Your task to perform on an android device: Open settings on Google Maps Image 0: 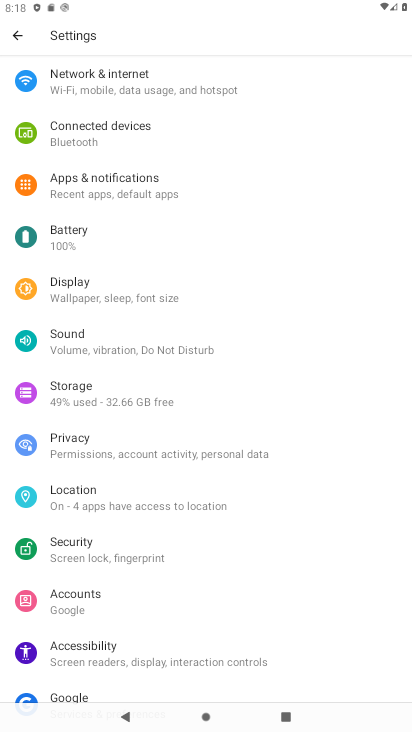
Step 0: press home button
Your task to perform on an android device: Open settings on Google Maps Image 1: 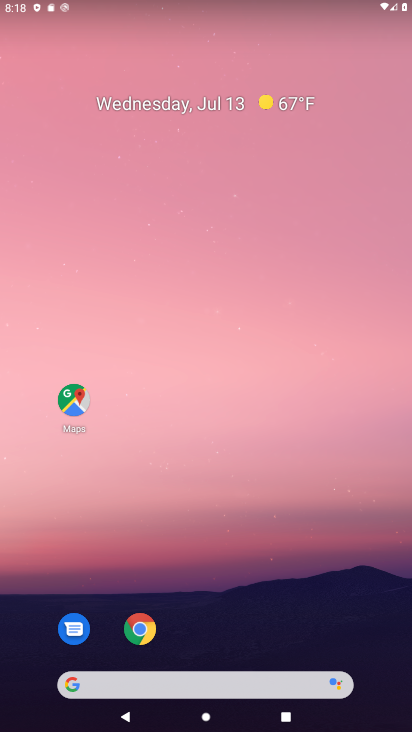
Step 1: drag from (222, 655) to (218, 122)
Your task to perform on an android device: Open settings on Google Maps Image 2: 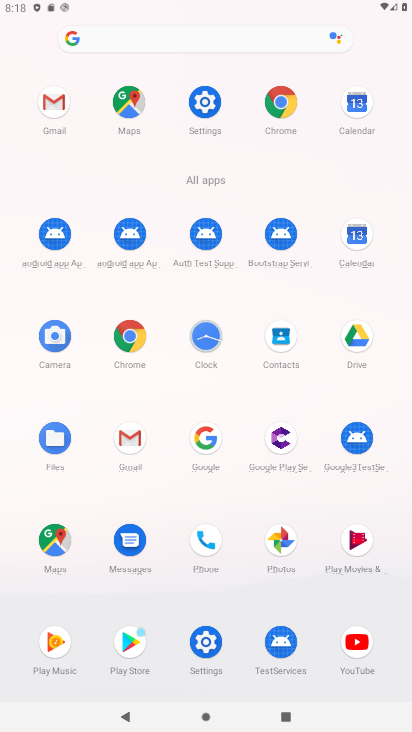
Step 2: click (54, 535)
Your task to perform on an android device: Open settings on Google Maps Image 3: 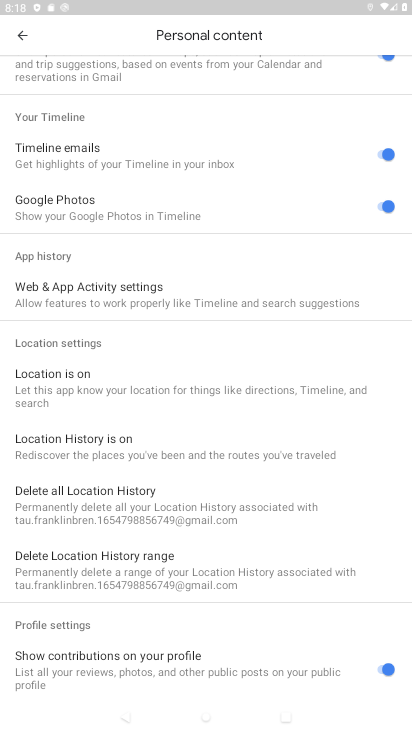
Step 3: drag from (165, 282) to (135, 579)
Your task to perform on an android device: Open settings on Google Maps Image 4: 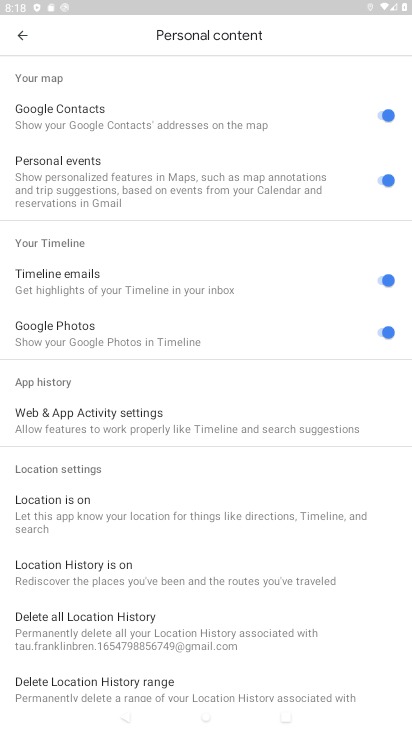
Step 4: click (23, 38)
Your task to perform on an android device: Open settings on Google Maps Image 5: 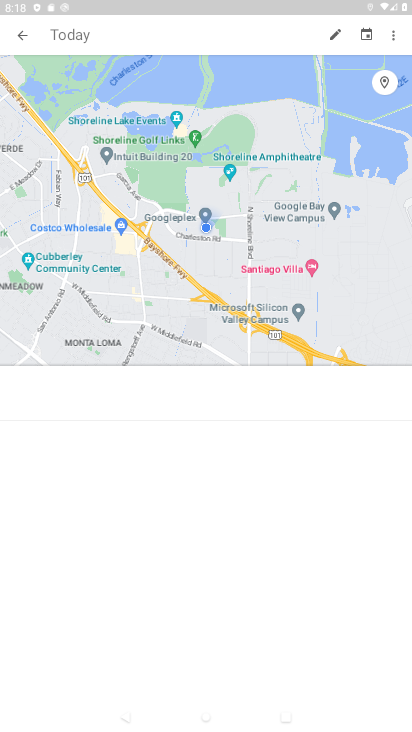
Step 5: click (23, 36)
Your task to perform on an android device: Open settings on Google Maps Image 6: 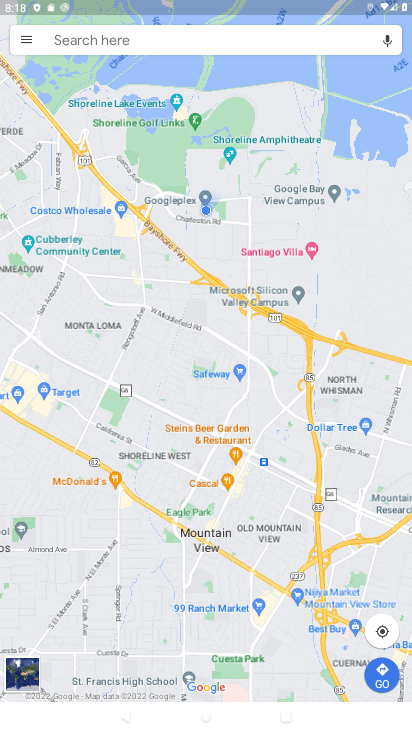
Step 6: click (23, 33)
Your task to perform on an android device: Open settings on Google Maps Image 7: 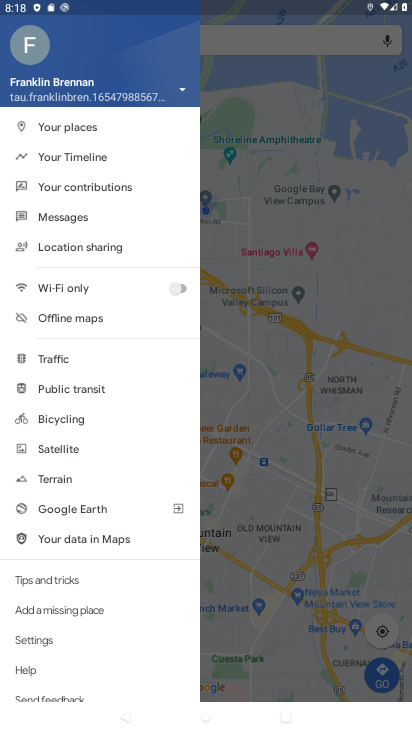
Step 7: click (45, 643)
Your task to perform on an android device: Open settings on Google Maps Image 8: 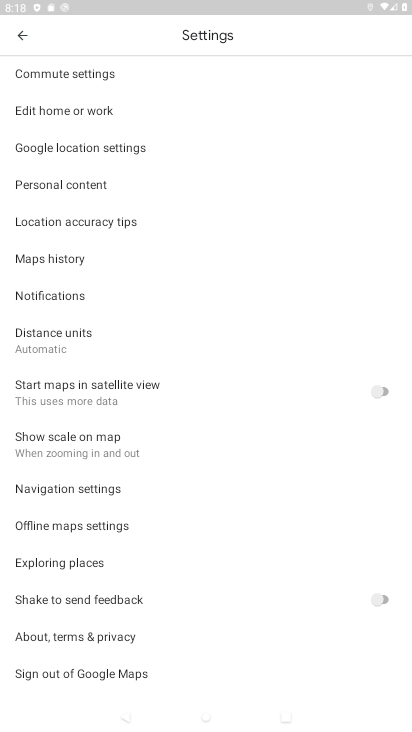
Step 8: task complete